Your task to perform on an android device: Open eBay Image 0: 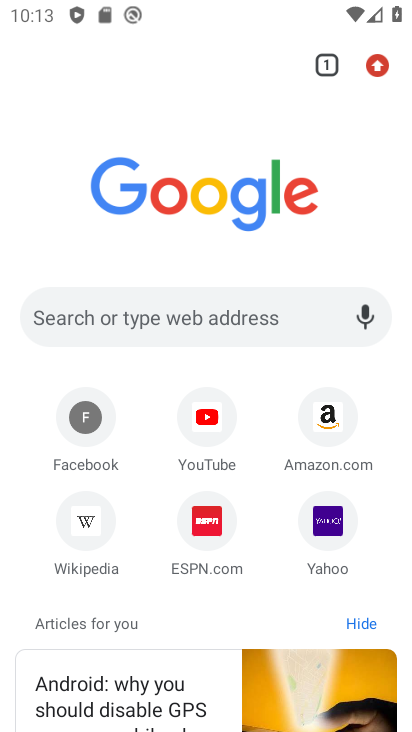
Step 0: click (192, 312)
Your task to perform on an android device: Open eBay Image 1: 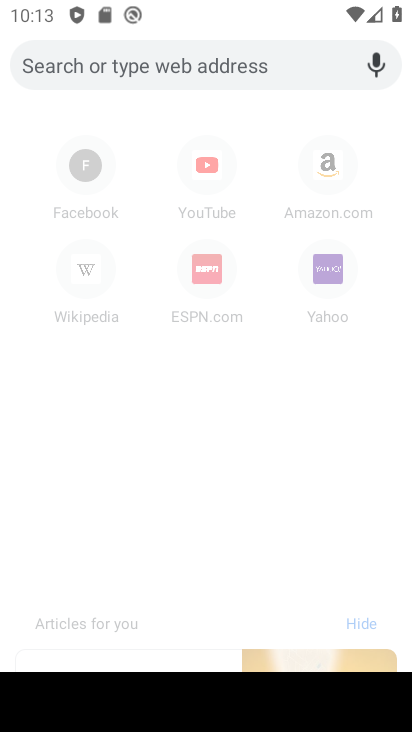
Step 1: type "ebay.com"
Your task to perform on an android device: Open eBay Image 2: 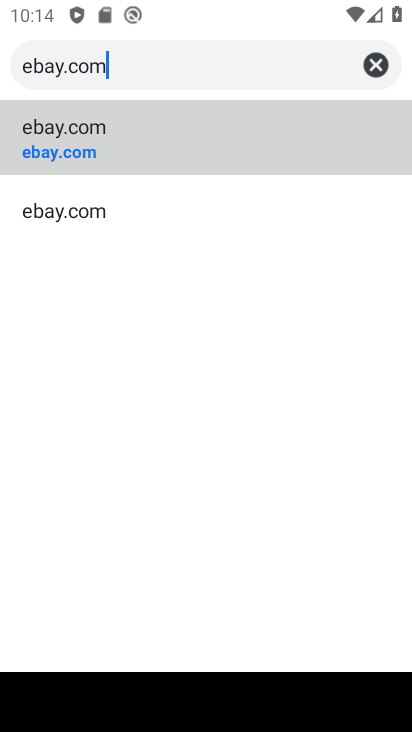
Step 2: click (55, 128)
Your task to perform on an android device: Open eBay Image 3: 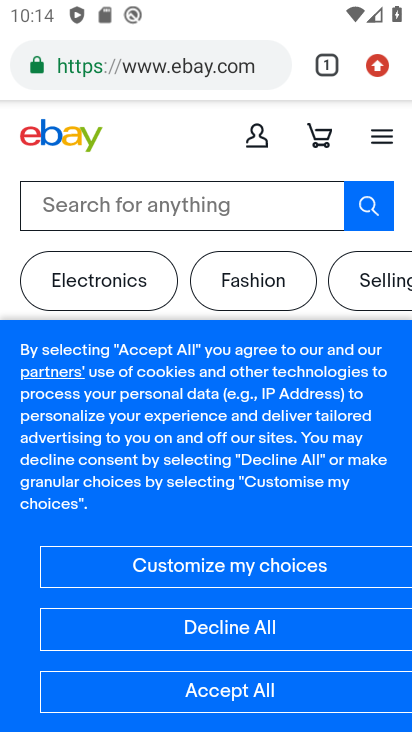
Step 3: task complete